Your task to perform on an android device: check google app version Image 0: 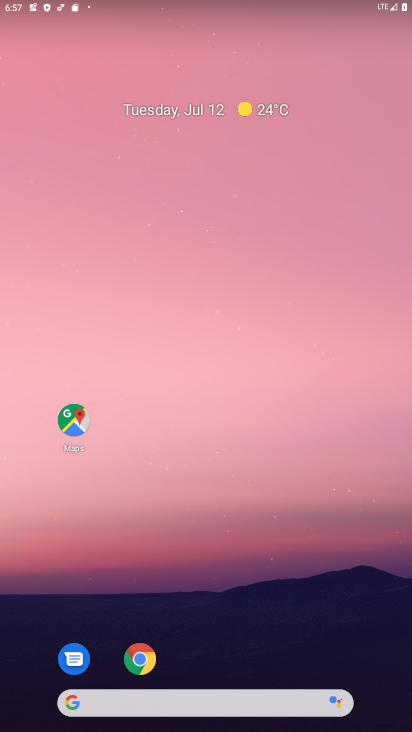
Step 0: drag from (308, 492) to (188, 8)
Your task to perform on an android device: check google app version Image 1: 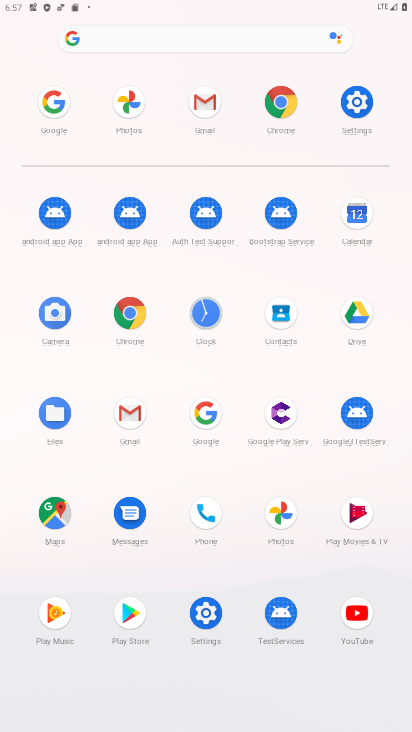
Step 1: click (197, 420)
Your task to perform on an android device: check google app version Image 2: 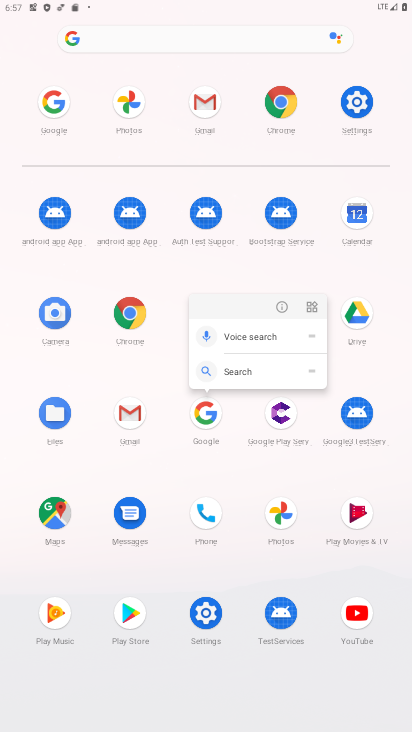
Step 2: click (280, 299)
Your task to perform on an android device: check google app version Image 3: 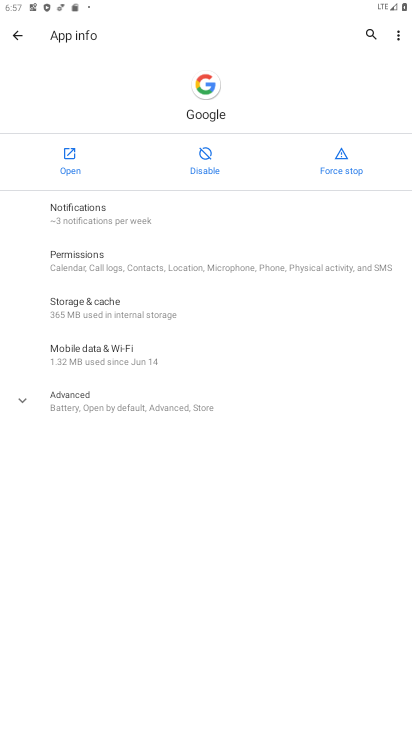
Step 3: click (49, 410)
Your task to perform on an android device: check google app version Image 4: 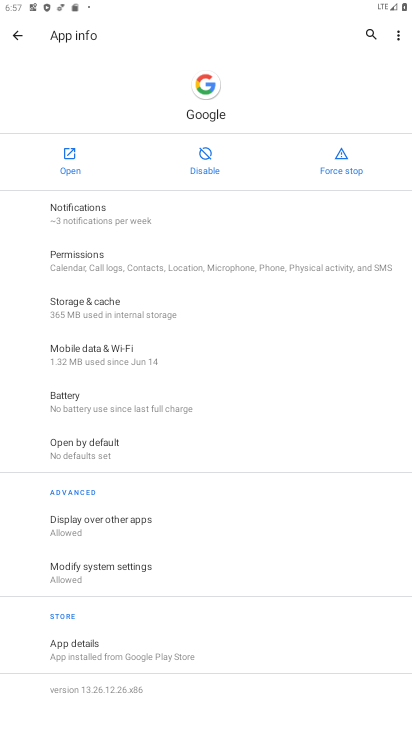
Step 4: task complete